Your task to perform on an android device: Go to battery settings Image 0: 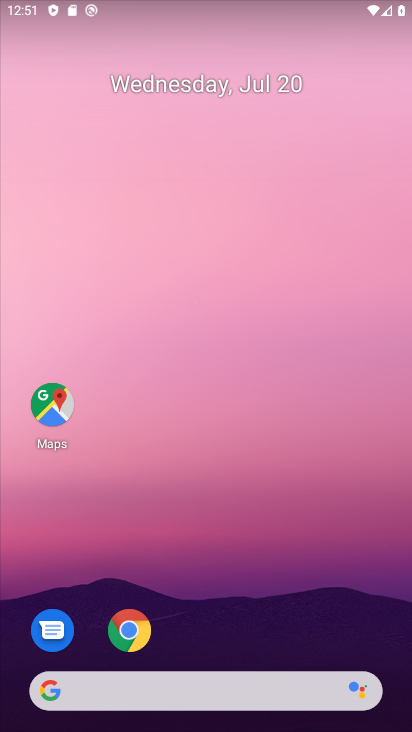
Step 0: drag from (258, 701) to (291, 260)
Your task to perform on an android device: Go to battery settings Image 1: 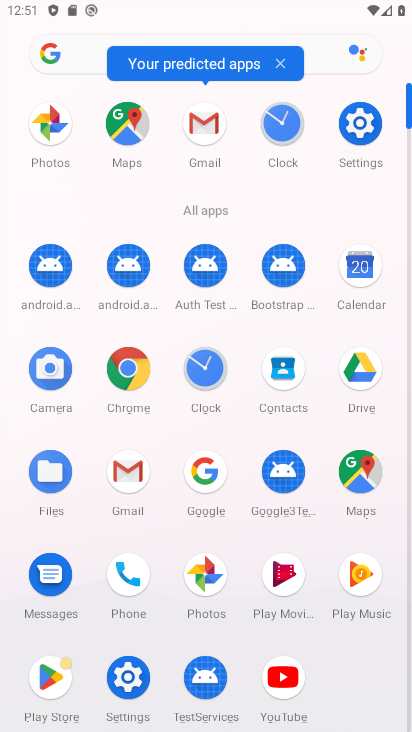
Step 1: click (140, 670)
Your task to perform on an android device: Go to battery settings Image 2: 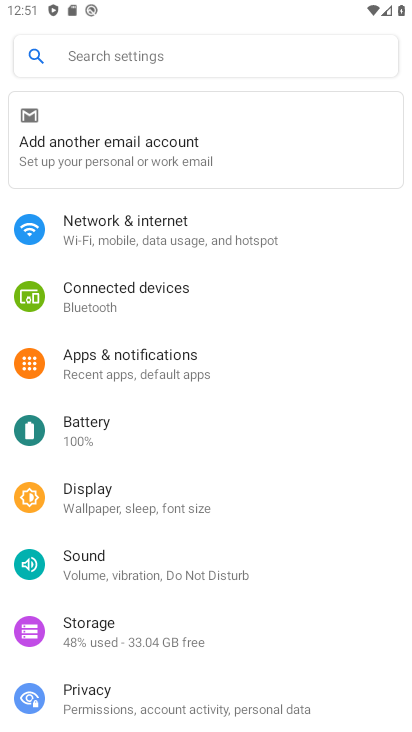
Step 2: click (116, 430)
Your task to perform on an android device: Go to battery settings Image 3: 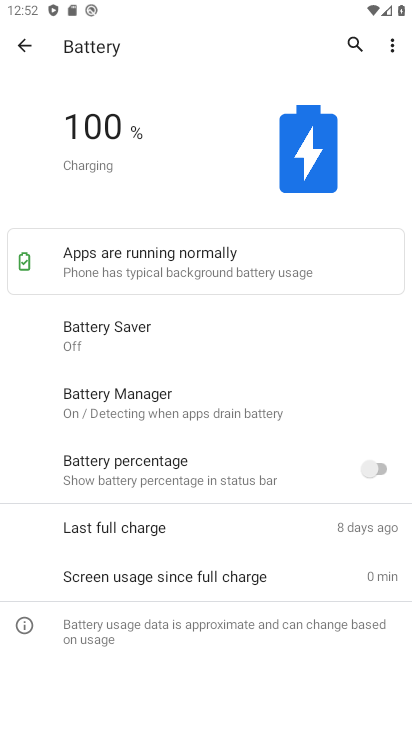
Step 3: task complete